Your task to perform on an android device: turn off airplane mode Image 0: 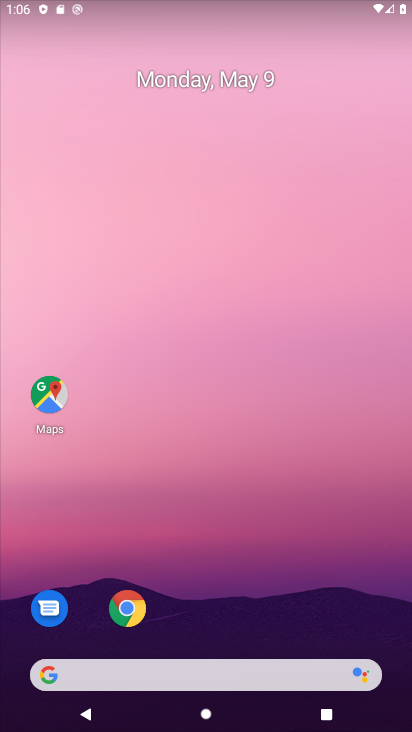
Step 0: drag from (174, 1) to (131, 458)
Your task to perform on an android device: turn off airplane mode Image 1: 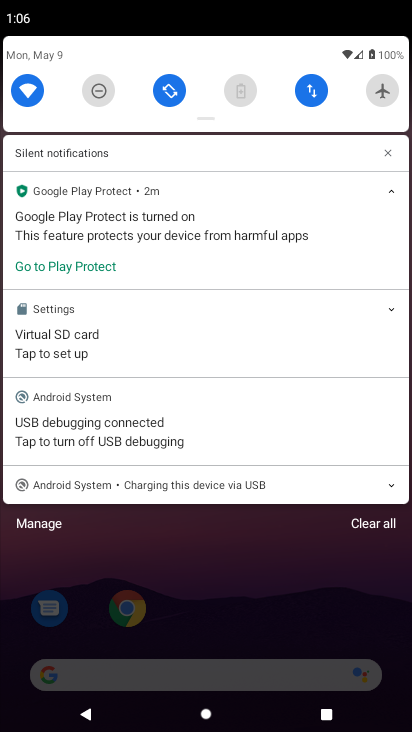
Step 1: task complete